Your task to perform on an android device: What is the recent news? Image 0: 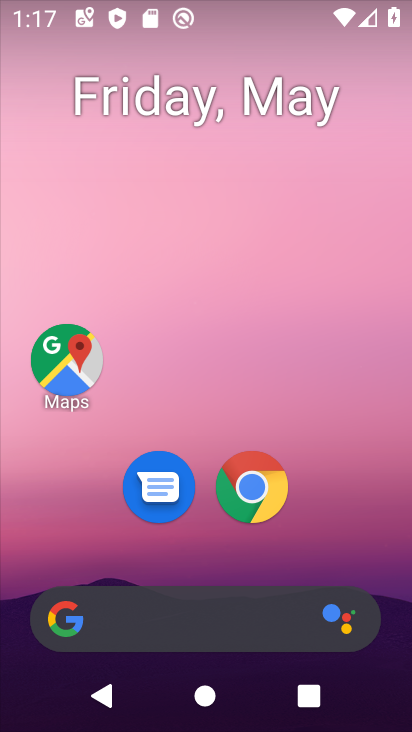
Step 0: click (165, 629)
Your task to perform on an android device: What is the recent news? Image 1: 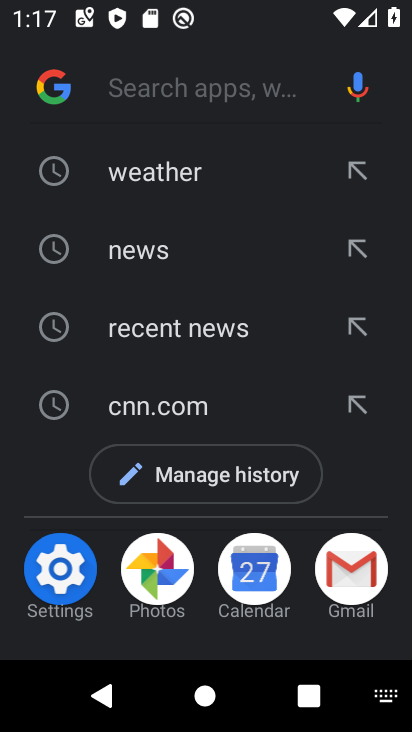
Step 1: click (206, 342)
Your task to perform on an android device: What is the recent news? Image 2: 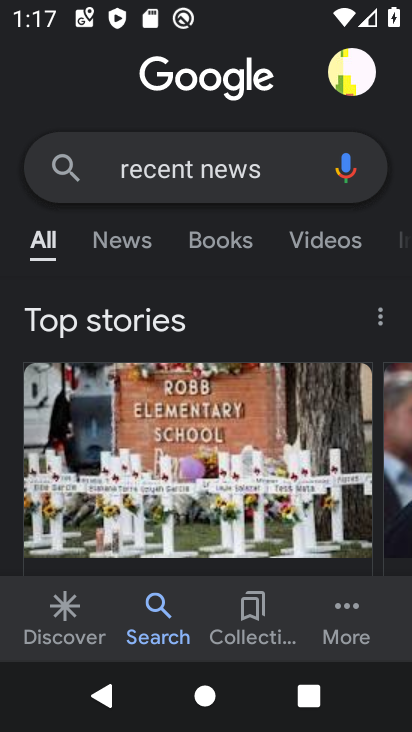
Step 2: task complete